Your task to perform on an android device: Open the map Image 0: 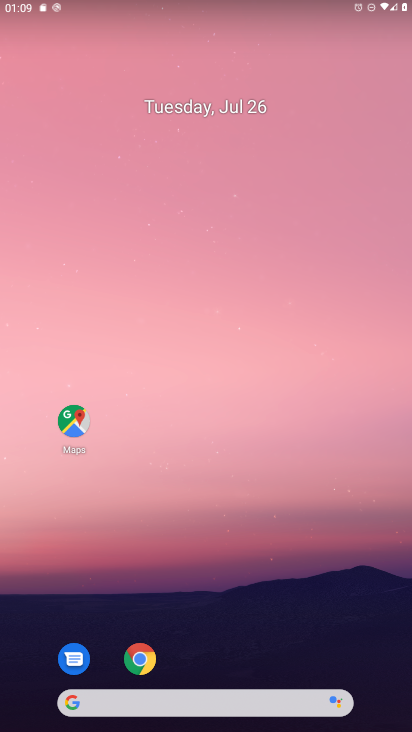
Step 0: drag from (226, 643) to (292, 20)
Your task to perform on an android device: Open the map Image 1: 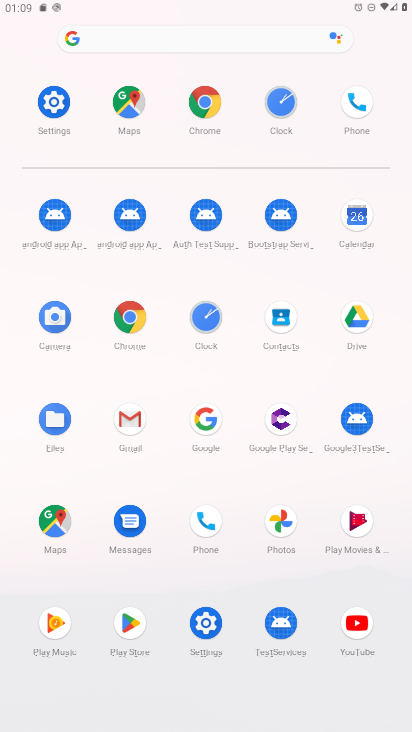
Step 1: click (45, 508)
Your task to perform on an android device: Open the map Image 2: 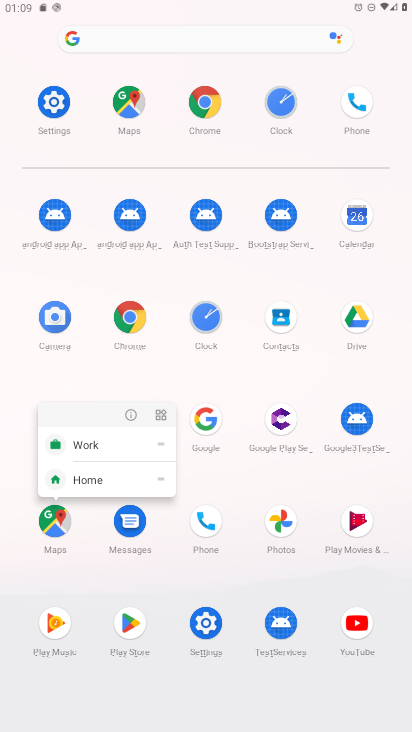
Step 2: click (56, 518)
Your task to perform on an android device: Open the map Image 3: 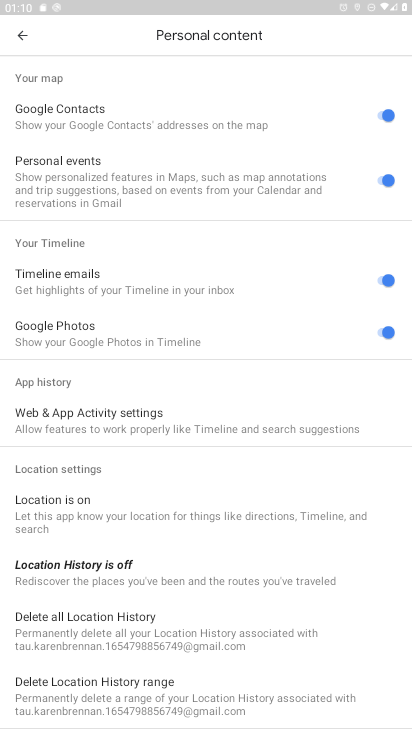
Step 3: click (19, 29)
Your task to perform on an android device: Open the map Image 4: 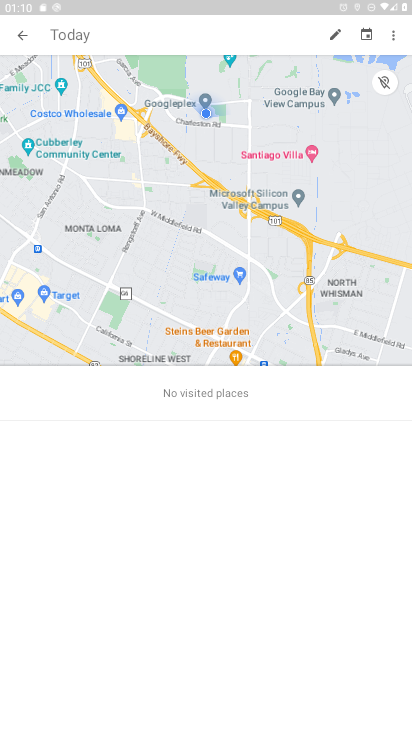
Step 4: task complete